Your task to perform on an android device: Open accessibility settings Image 0: 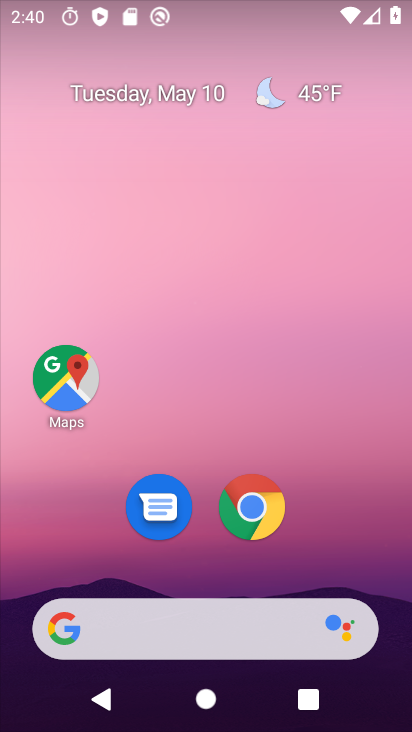
Step 0: drag from (220, 596) to (156, 179)
Your task to perform on an android device: Open accessibility settings Image 1: 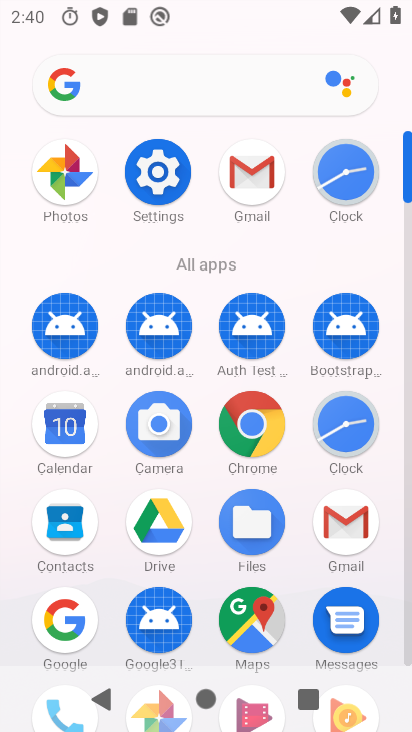
Step 1: click (156, 179)
Your task to perform on an android device: Open accessibility settings Image 2: 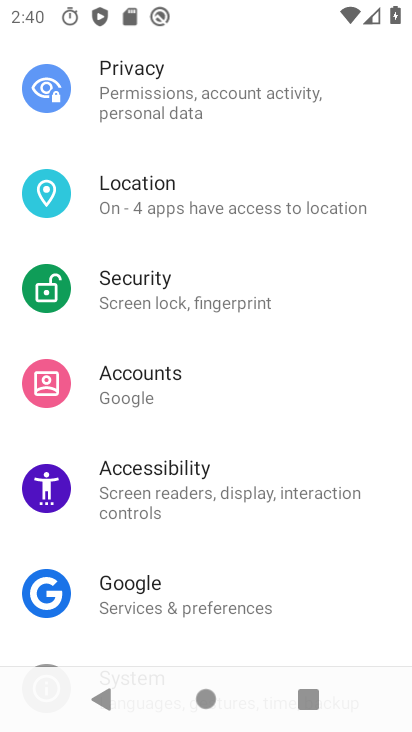
Step 2: click (142, 498)
Your task to perform on an android device: Open accessibility settings Image 3: 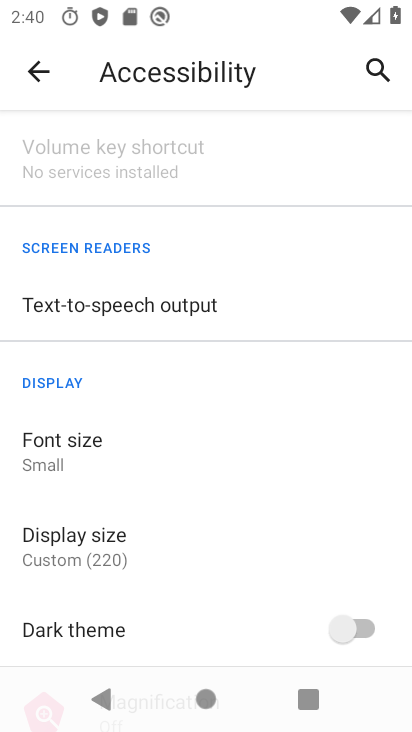
Step 3: task complete